Your task to perform on an android device: open a bookmark in the chrome app Image 0: 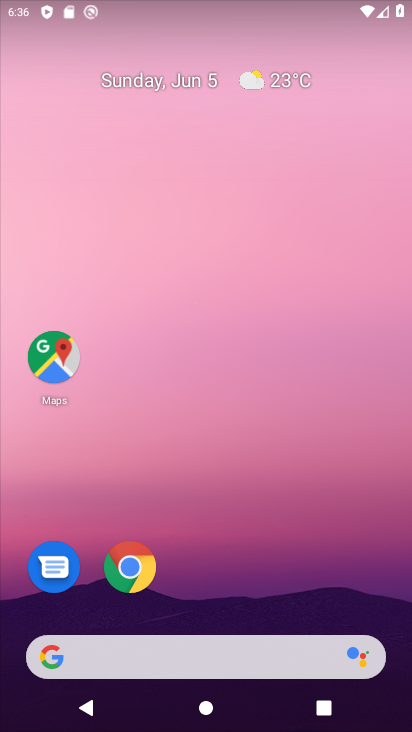
Step 0: drag from (346, 612) to (211, 64)
Your task to perform on an android device: open a bookmark in the chrome app Image 1: 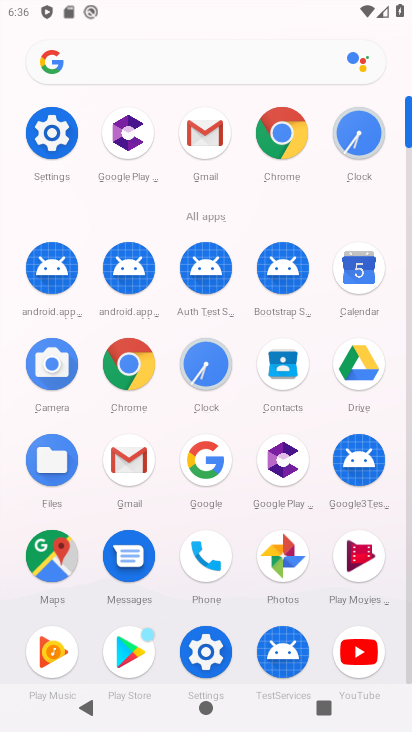
Step 1: click (278, 148)
Your task to perform on an android device: open a bookmark in the chrome app Image 2: 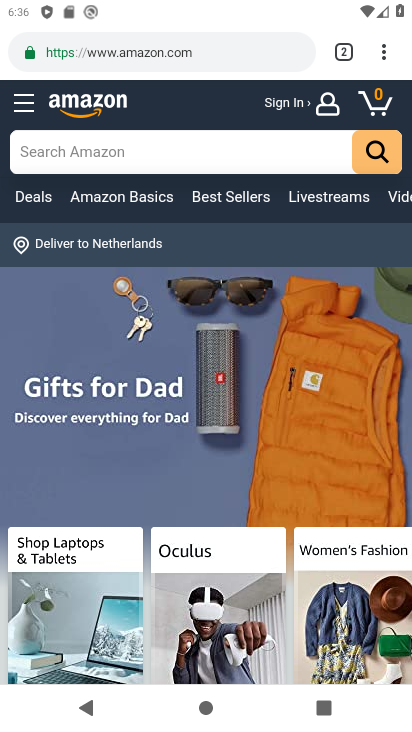
Step 2: press back button
Your task to perform on an android device: open a bookmark in the chrome app Image 3: 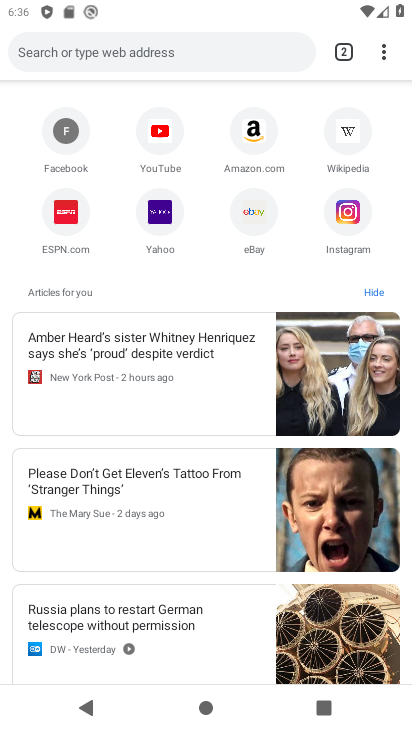
Step 3: click (377, 48)
Your task to perform on an android device: open a bookmark in the chrome app Image 4: 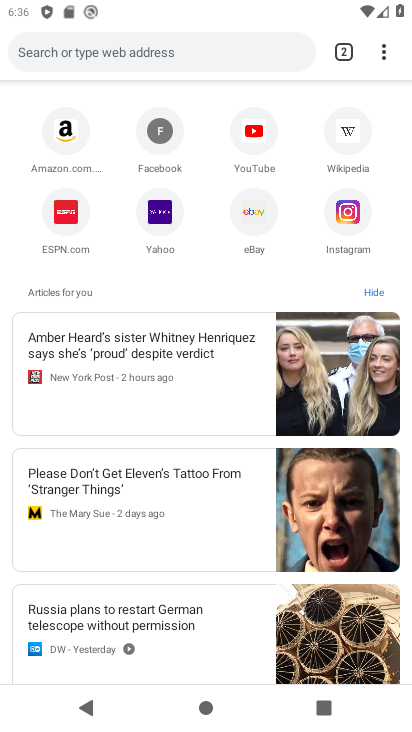
Step 4: click (380, 48)
Your task to perform on an android device: open a bookmark in the chrome app Image 5: 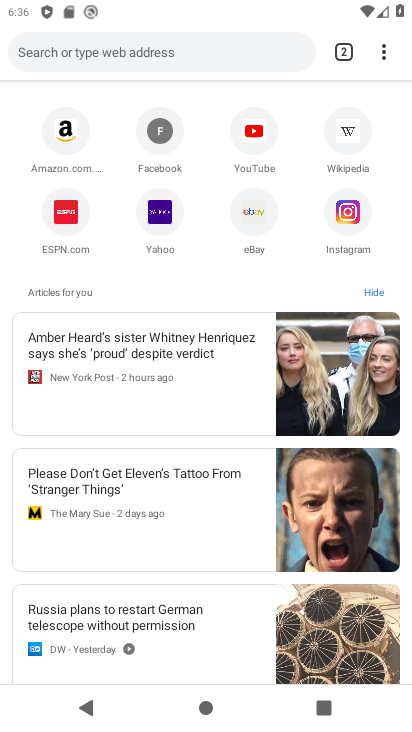
Step 5: click (386, 40)
Your task to perform on an android device: open a bookmark in the chrome app Image 6: 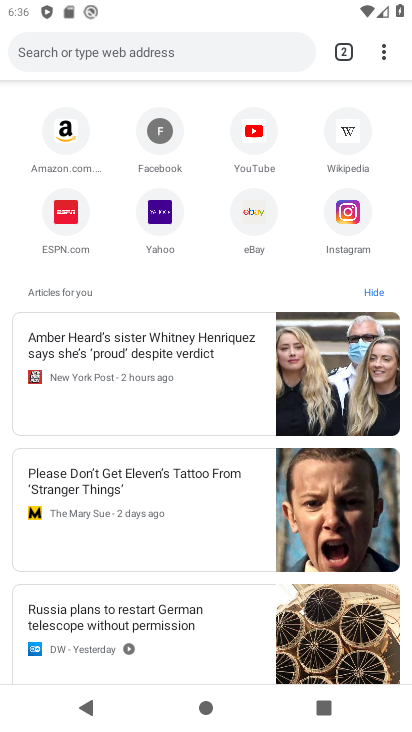
Step 6: click (382, 44)
Your task to perform on an android device: open a bookmark in the chrome app Image 7: 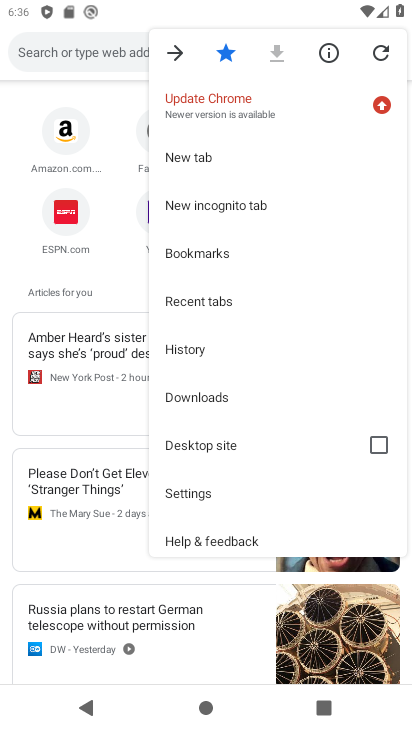
Step 7: click (290, 260)
Your task to perform on an android device: open a bookmark in the chrome app Image 8: 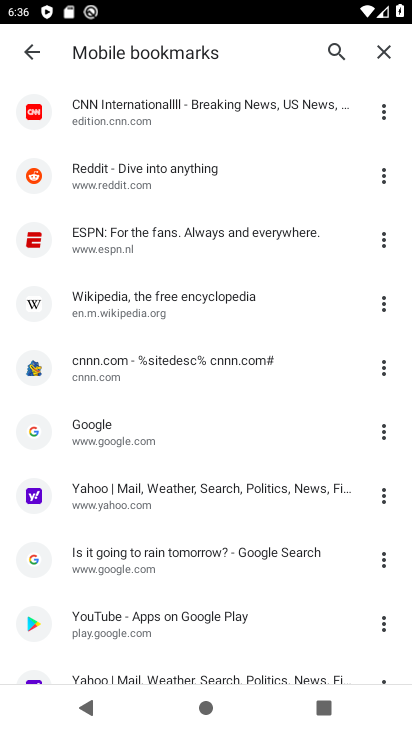
Step 8: task complete